Your task to perform on an android device: Go to Android settings Image 0: 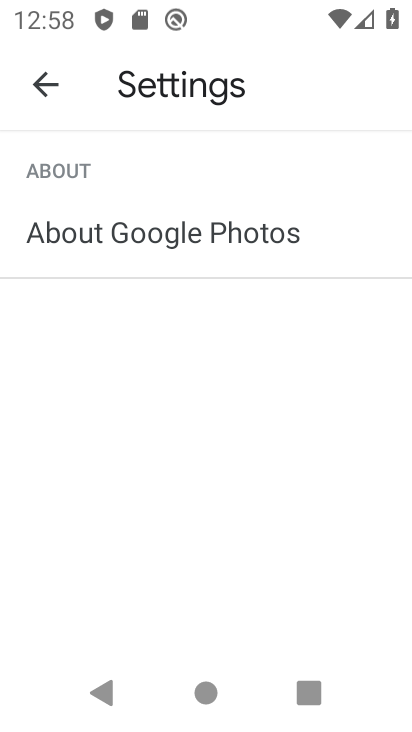
Step 0: press home button
Your task to perform on an android device: Go to Android settings Image 1: 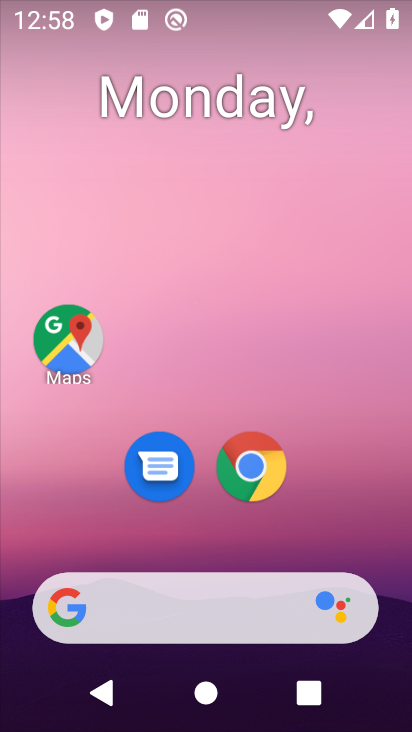
Step 1: drag from (214, 521) to (241, 51)
Your task to perform on an android device: Go to Android settings Image 2: 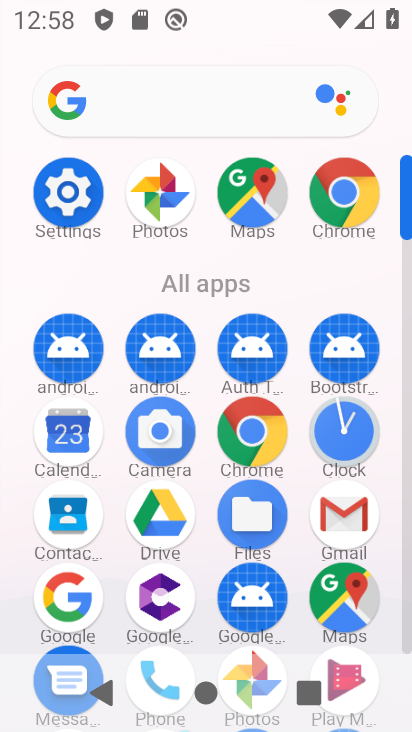
Step 2: click (86, 206)
Your task to perform on an android device: Go to Android settings Image 3: 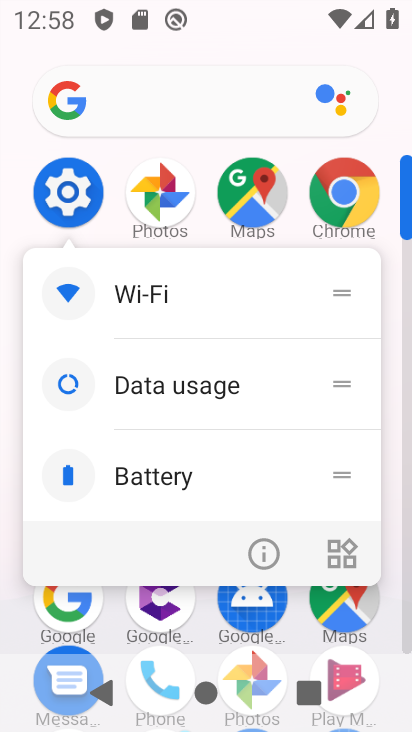
Step 3: click (61, 196)
Your task to perform on an android device: Go to Android settings Image 4: 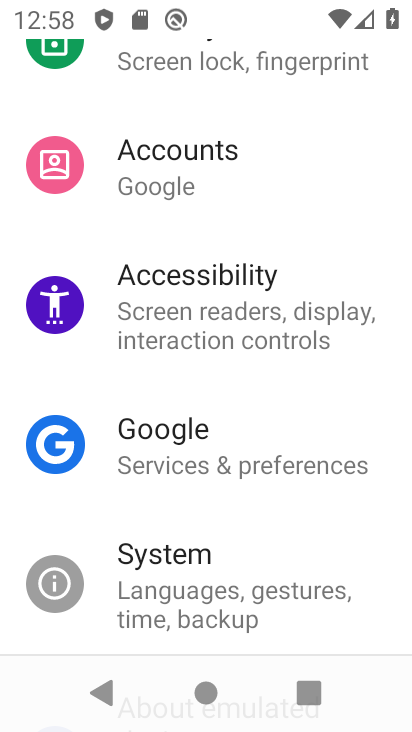
Step 4: drag from (239, 555) to (302, 87)
Your task to perform on an android device: Go to Android settings Image 5: 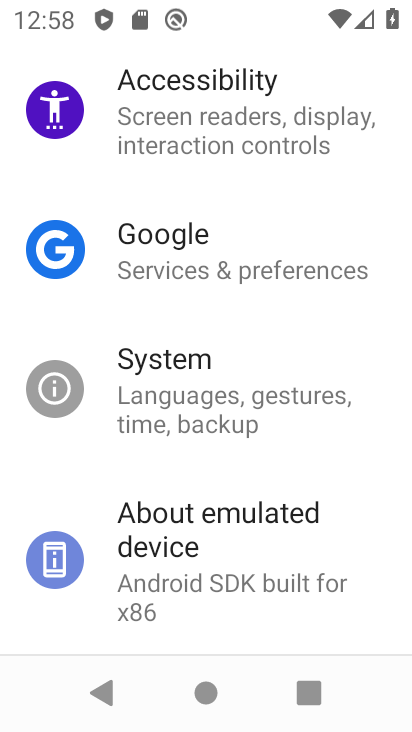
Step 5: drag from (249, 577) to (293, 161)
Your task to perform on an android device: Go to Android settings Image 6: 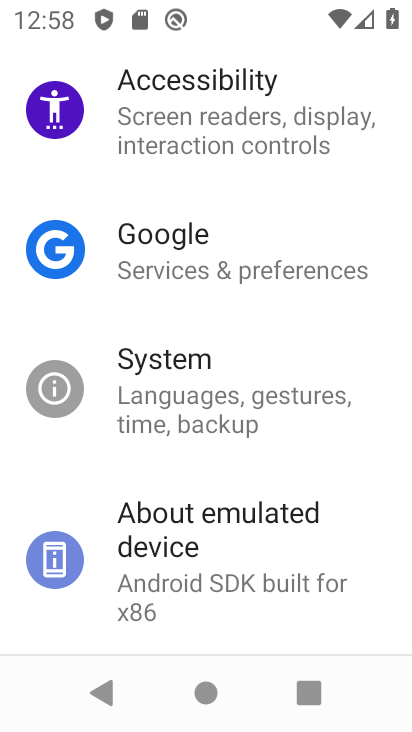
Step 6: click (171, 534)
Your task to perform on an android device: Go to Android settings Image 7: 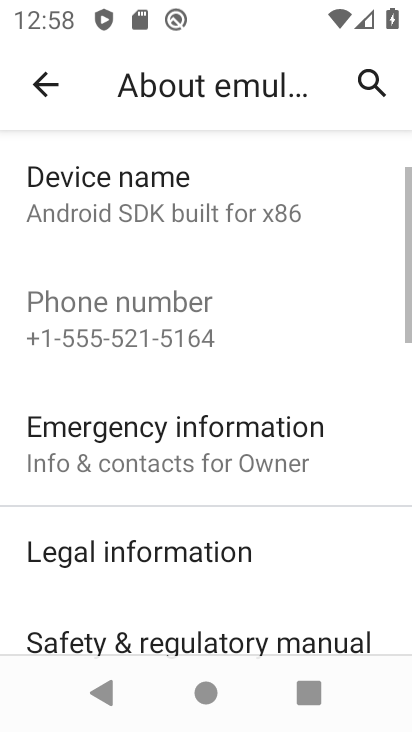
Step 7: drag from (188, 641) to (235, 345)
Your task to perform on an android device: Go to Android settings Image 8: 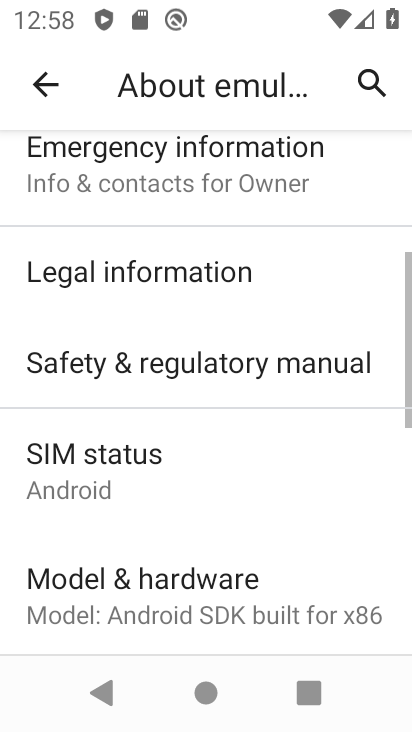
Step 8: drag from (210, 507) to (246, 195)
Your task to perform on an android device: Go to Android settings Image 9: 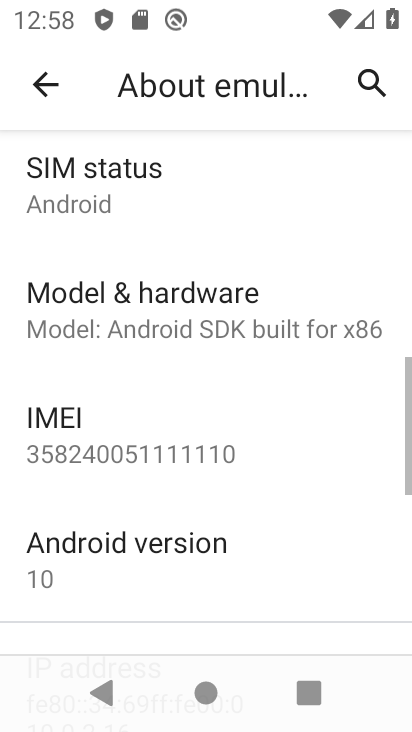
Step 9: click (190, 550)
Your task to perform on an android device: Go to Android settings Image 10: 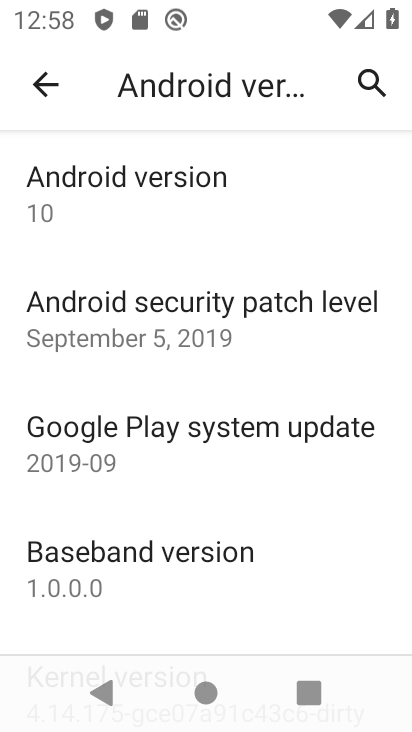
Step 10: task complete